Your task to perform on an android device: read, delete, or share a saved page in the chrome app Image 0: 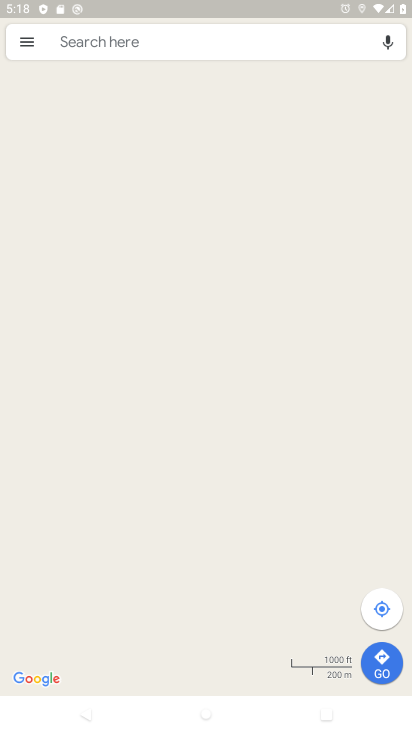
Step 0: click (175, 37)
Your task to perform on an android device: read, delete, or share a saved page in the chrome app Image 1: 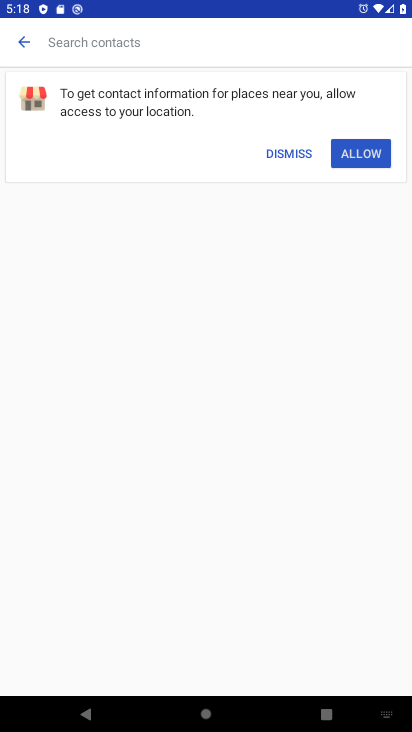
Step 1: press home button
Your task to perform on an android device: read, delete, or share a saved page in the chrome app Image 2: 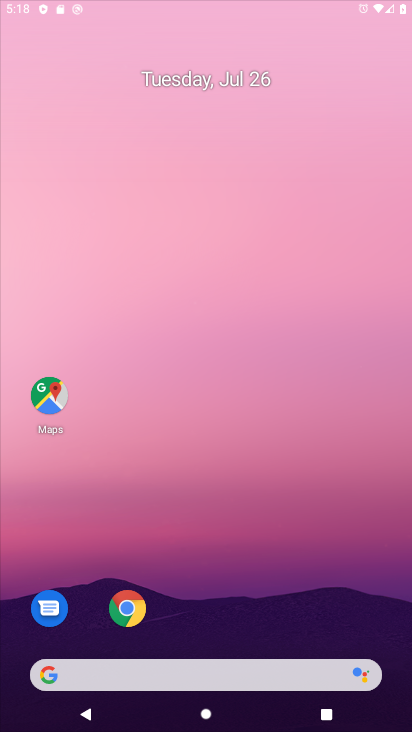
Step 2: drag from (376, 669) to (115, 1)
Your task to perform on an android device: read, delete, or share a saved page in the chrome app Image 3: 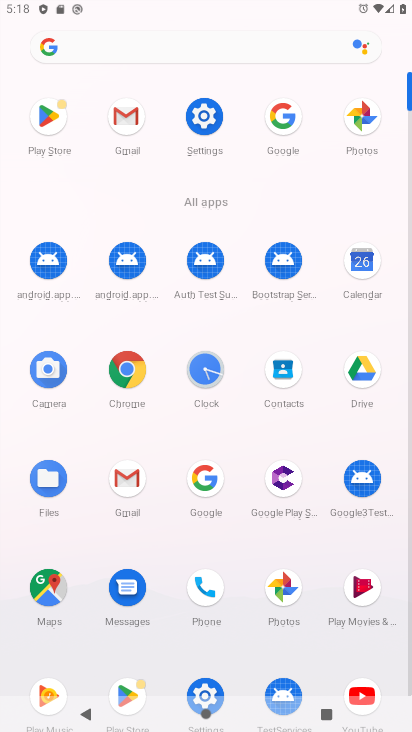
Step 3: click (126, 373)
Your task to perform on an android device: read, delete, or share a saved page in the chrome app Image 4: 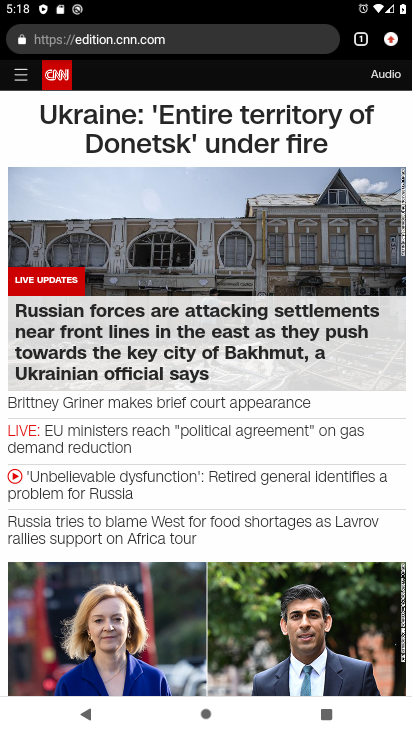
Step 4: task complete